Your task to perform on an android device: Open Google Maps Image 0: 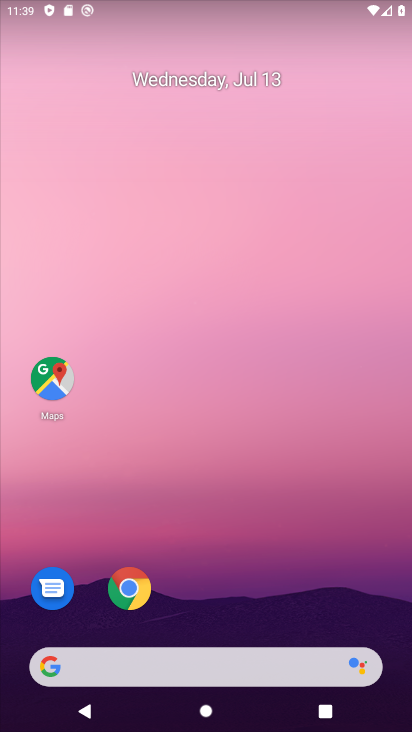
Step 0: drag from (215, 659) to (336, 142)
Your task to perform on an android device: Open Google Maps Image 1: 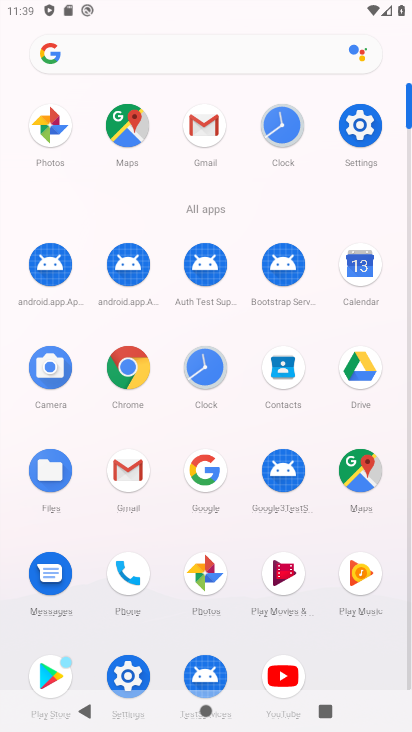
Step 1: click (362, 464)
Your task to perform on an android device: Open Google Maps Image 2: 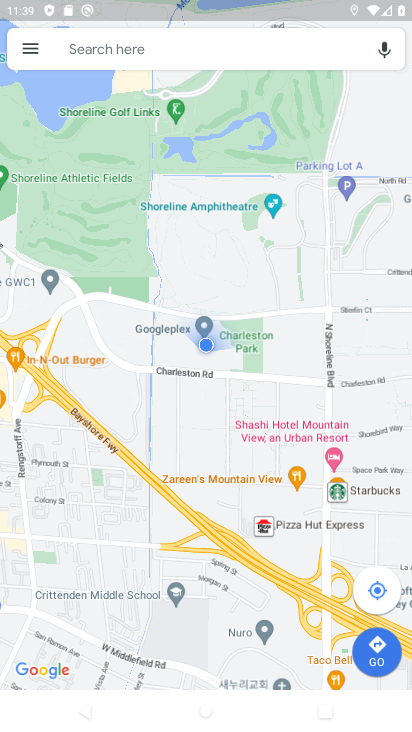
Step 2: task complete